Your task to perform on an android device: Open privacy settings Image 0: 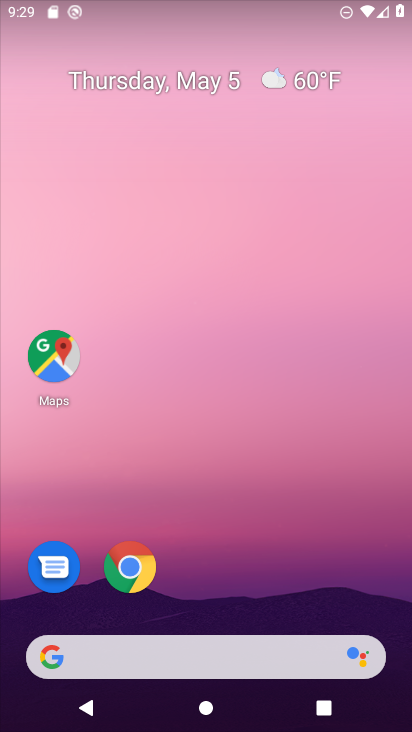
Step 0: drag from (185, 731) to (220, 275)
Your task to perform on an android device: Open privacy settings Image 1: 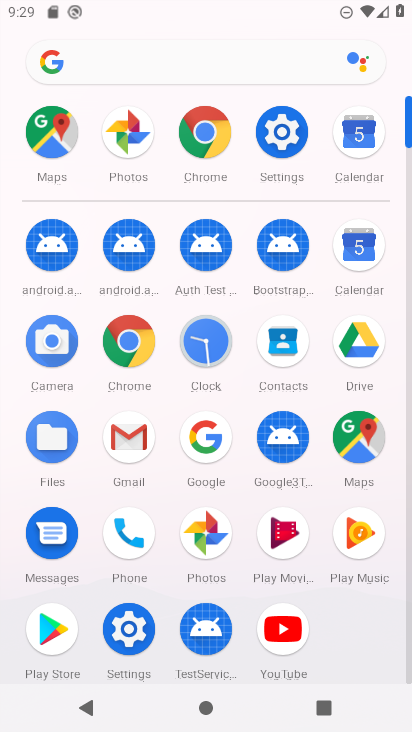
Step 1: click (273, 136)
Your task to perform on an android device: Open privacy settings Image 2: 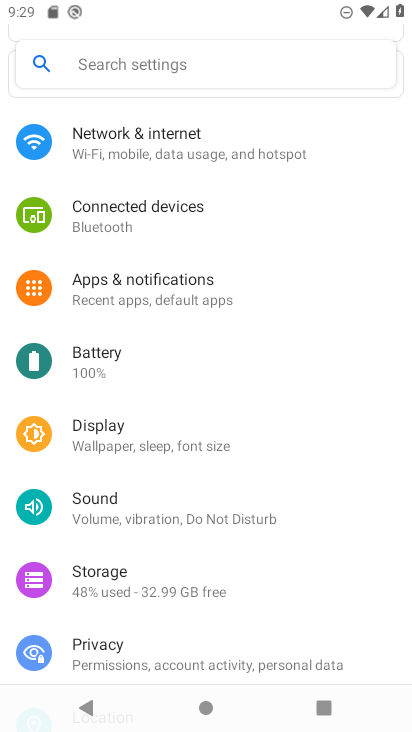
Step 2: click (92, 654)
Your task to perform on an android device: Open privacy settings Image 3: 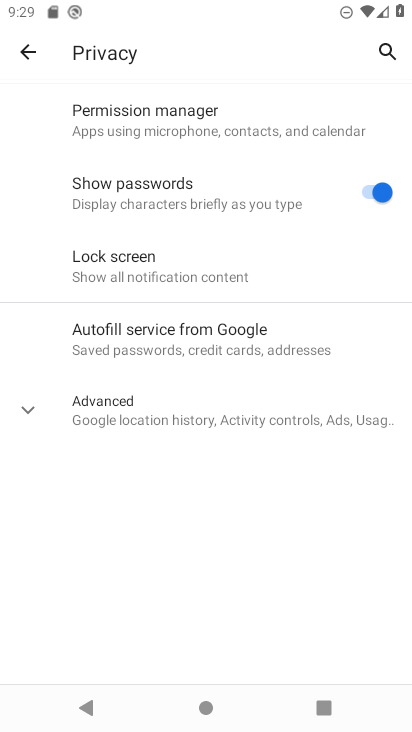
Step 3: task complete